Your task to perform on an android device: Open accessibility settings Image 0: 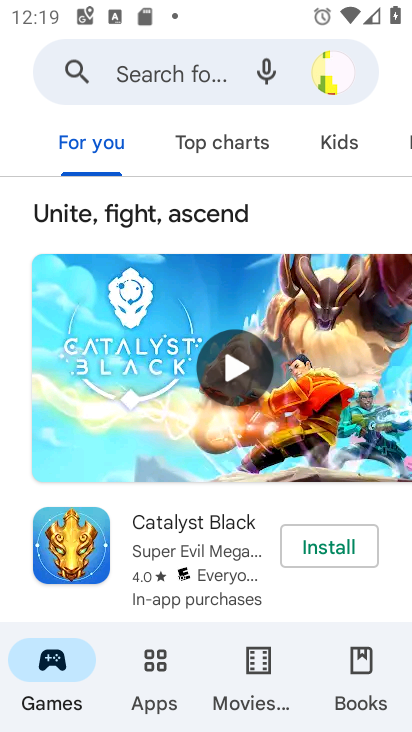
Step 0: press home button
Your task to perform on an android device: Open accessibility settings Image 1: 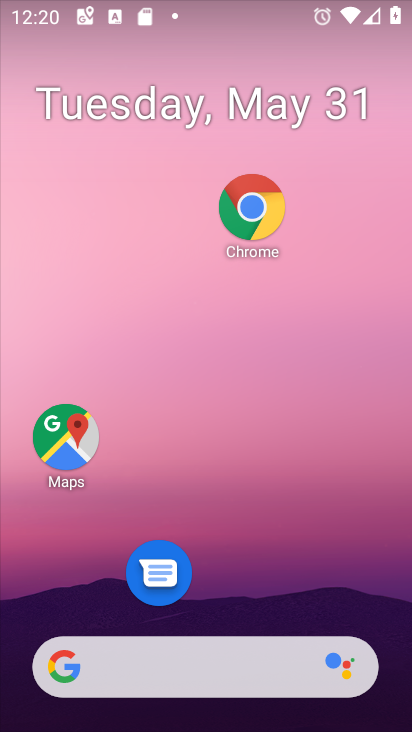
Step 1: drag from (279, 675) to (281, 94)
Your task to perform on an android device: Open accessibility settings Image 2: 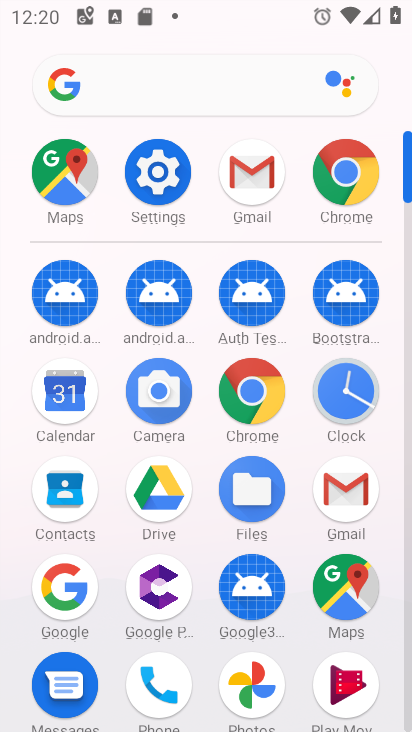
Step 2: click (167, 185)
Your task to perform on an android device: Open accessibility settings Image 3: 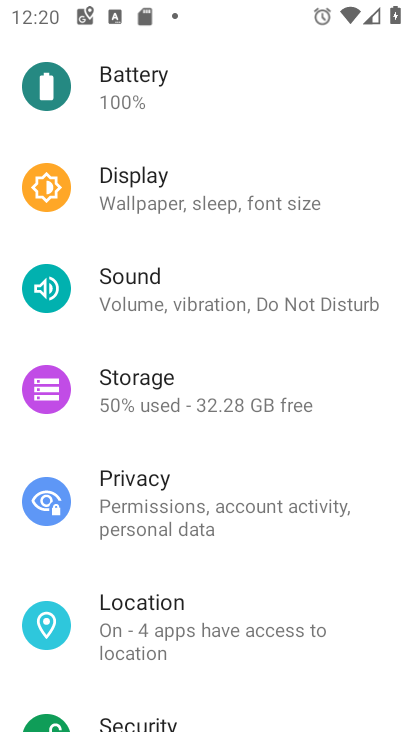
Step 3: drag from (222, 553) to (207, 119)
Your task to perform on an android device: Open accessibility settings Image 4: 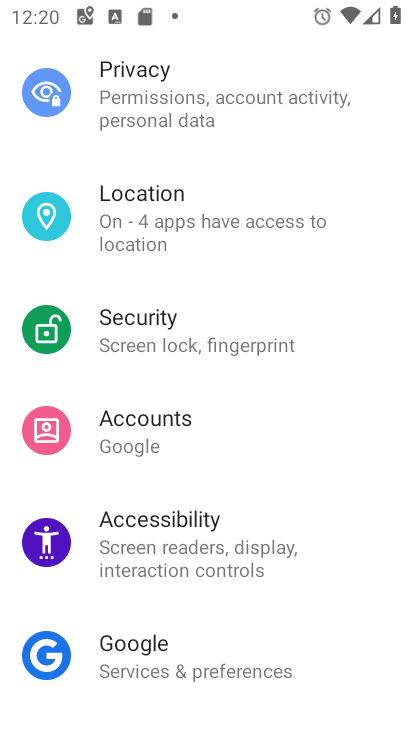
Step 4: click (199, 536)
Your task to perform on an android device: Open accessibility settings Image 5: 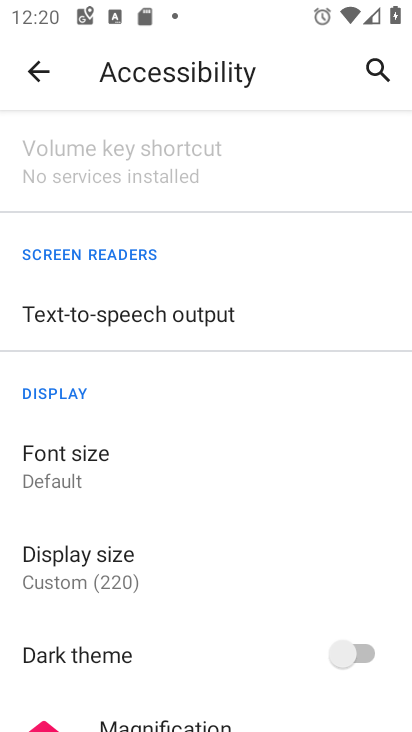
Step 5: task complete